Your task to perform on an android device: Open battery settings Image 0: 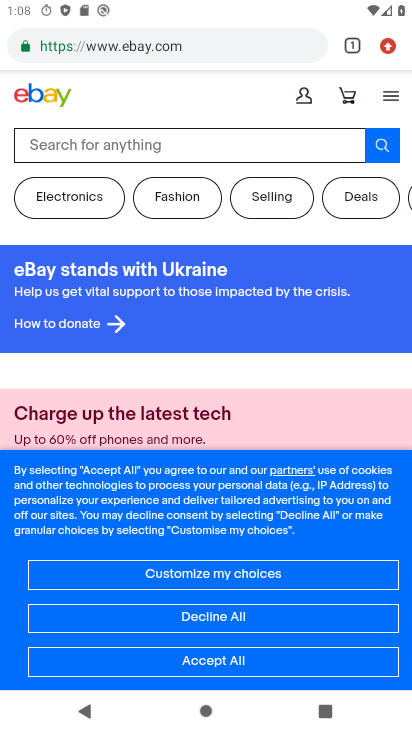
Step 0: press home button
Your task to perform on an android device: Open battery settings Image 1: 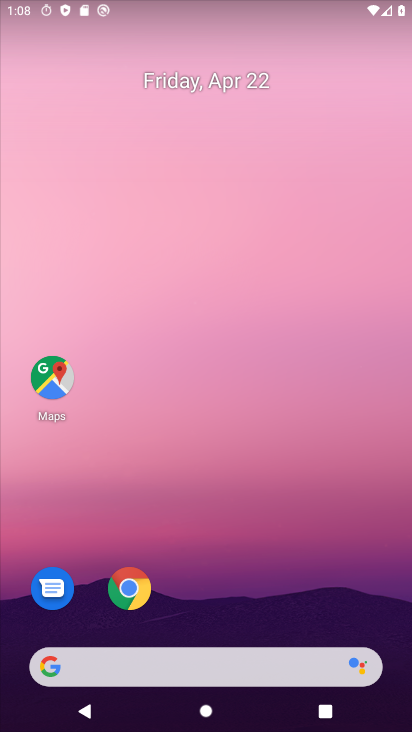
Step 1: drag from (345, 399) to (318, 62)
Your task to perform on an android device: Open battery settings Image 2: 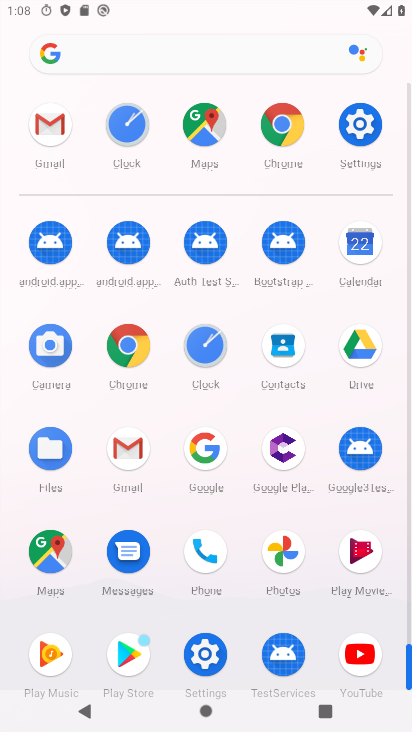
Step 2: click (361, 125)
Your task to perform on an android device: Open battery settings Image 3: 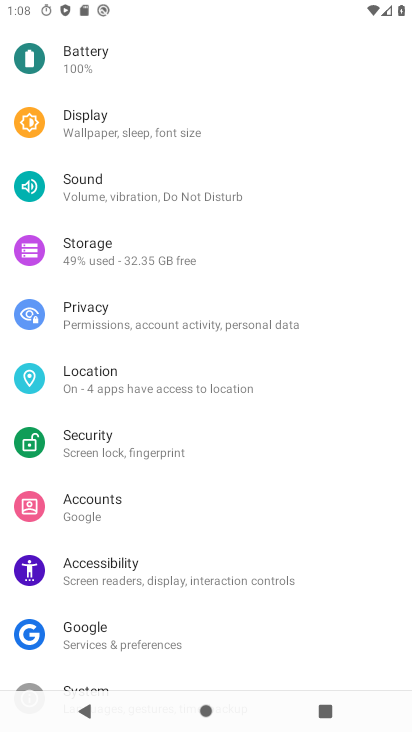
Step 3: click (97, 65)
Your task to perform on an android device: Open battery settings Image 4: 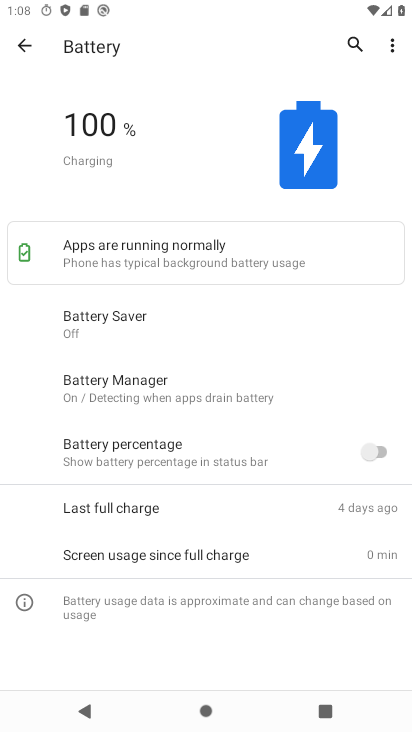
Step 4: task complete